Your task to perform on an android device: turn off sleep mode Image 0: 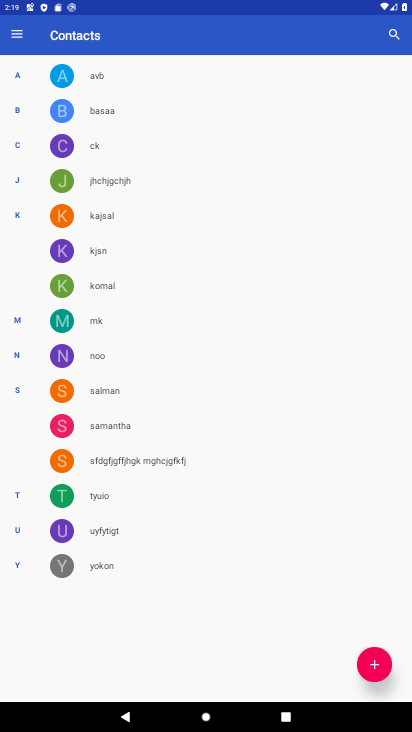
Step 0: press home button
Your task to perform on an android device: turn off sleep mode Image 1: 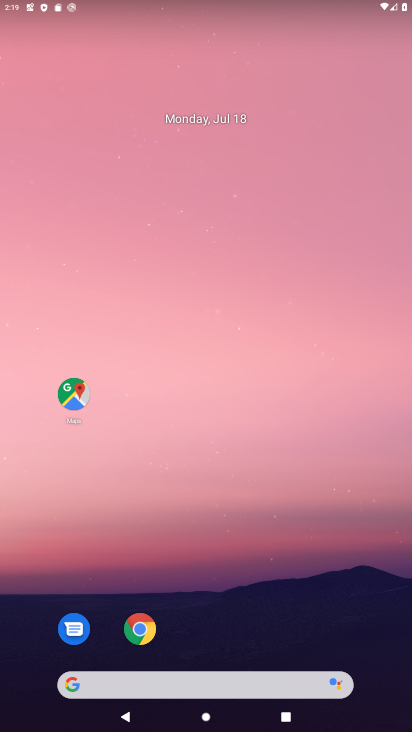
Step 1: drag from (212, 621) to (238, 247)
Your task to perform on an android device: turn off sleep mode Image 2: 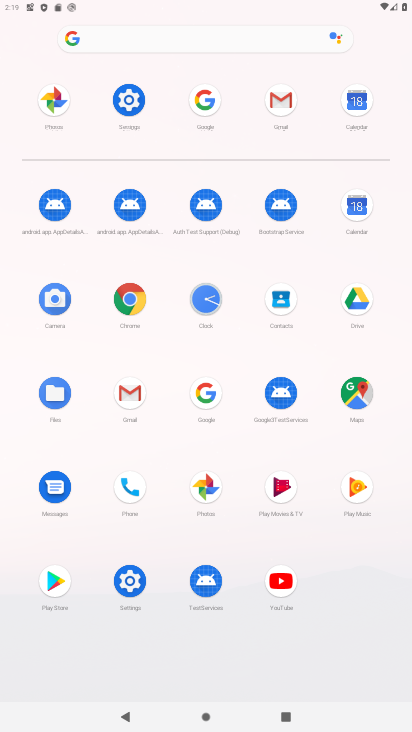
Step 2: click (125, 104)
Your task to perform on an android device: turn off sleep mode Image 3: 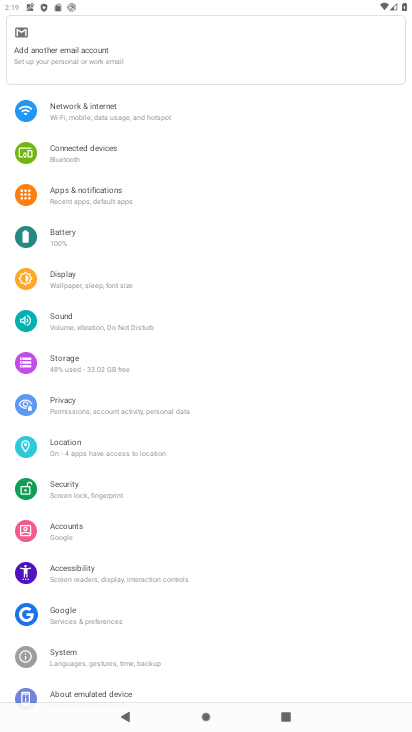
Step 3: click (94, 272)
Your task to perform on an android device: turn off sleep mode Image 4: 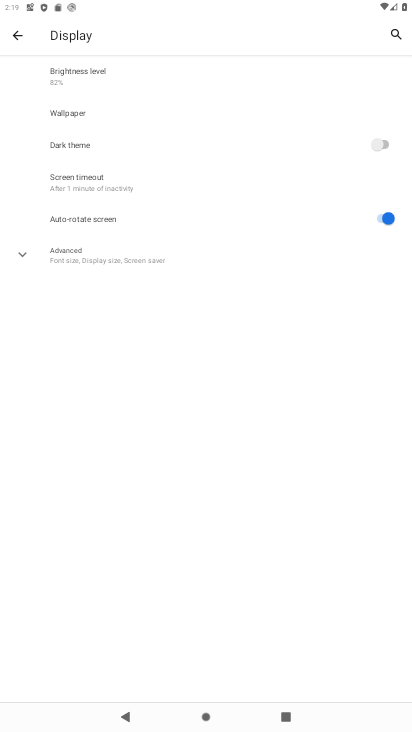
Step 4: click (117, 187)
Your task to perform on an android device: turn off sleep mode Image 5: 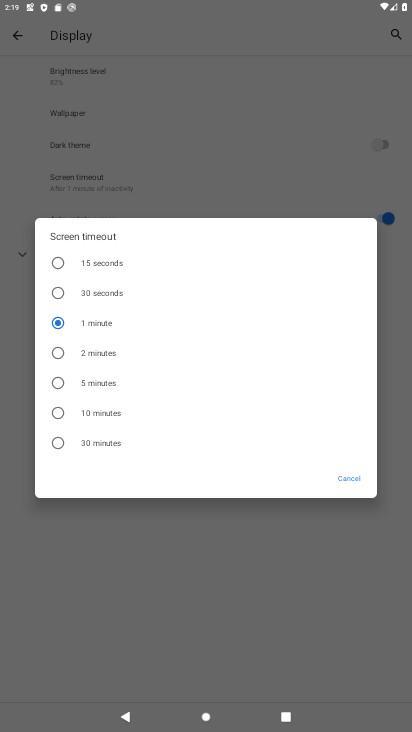
Step 5: click (134, 400)
Your task to perform on an android device: turn off sleep mode Image 6: 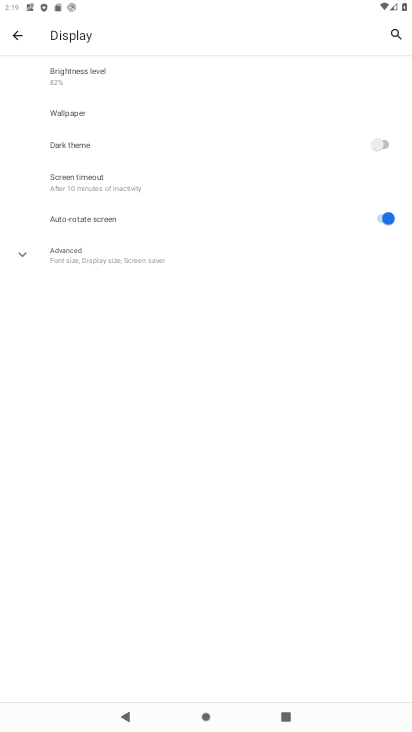
Step 6: task complete